Your task to perform on an android device: Is it going to rain today? Image 0: 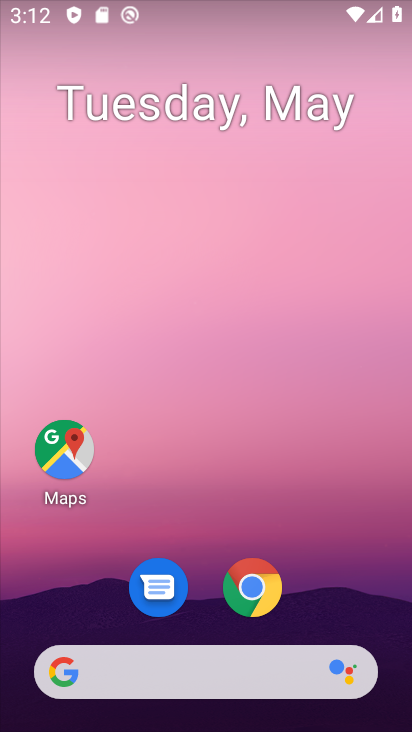
Step 0: click (256, 573)
Your task to perform on an android device: Is it going to rain today? Image 1: 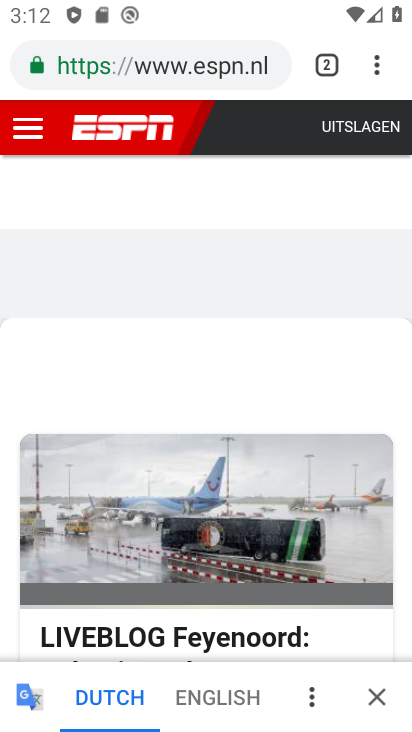
Step 1: click (371, 61)
Your task to perform on an android device: Is it going to rain today? Image 2: 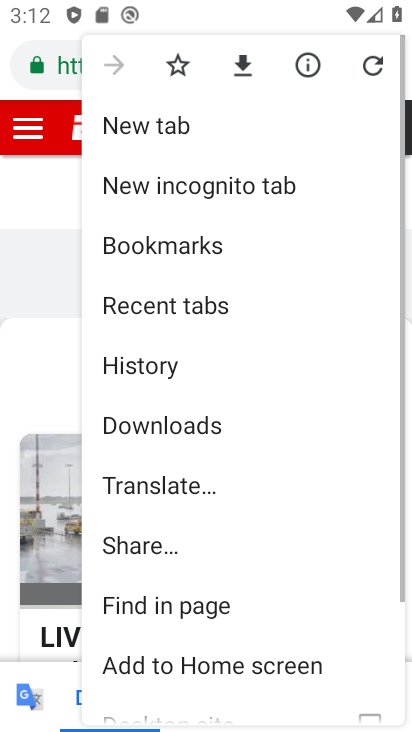
Step 2: click (208, 118)
Your task to perform on an android device: Is it going to rain today? Image 3: 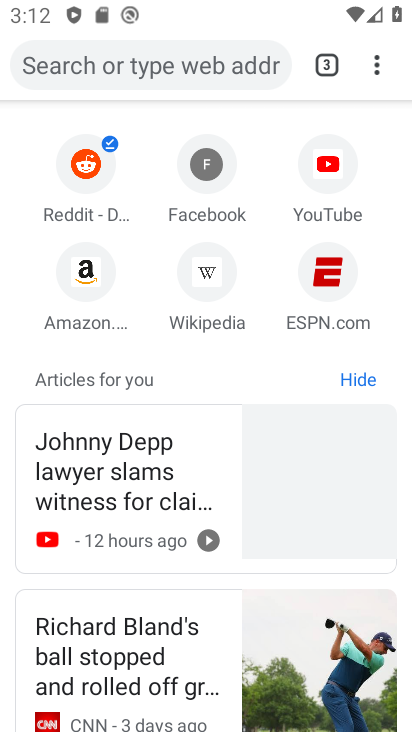
Step 3: click (153, 62)
Your task to perform on an android device: Is it going to rain today? Image 4: 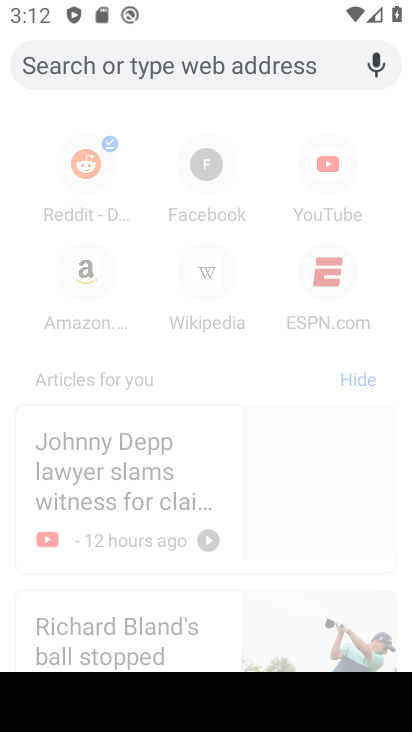
Step 4: type "Is it going to rain today?"
Your task to perform on an android device: Is it going to rain today? Image 5: 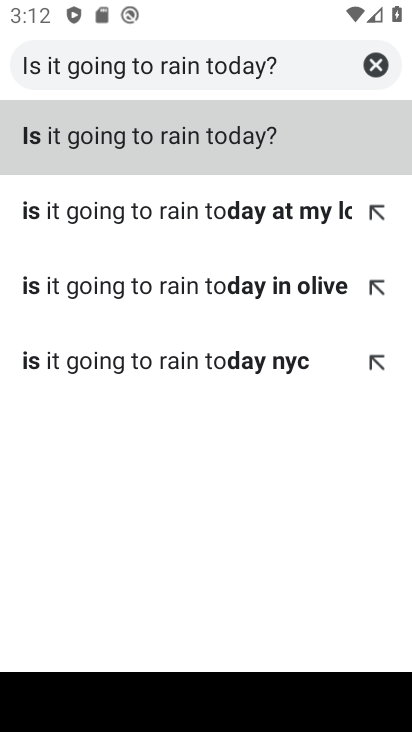
Step 5: click (143, 126)
Your task to perform on an android device: Is it going to rain today? Image 6: 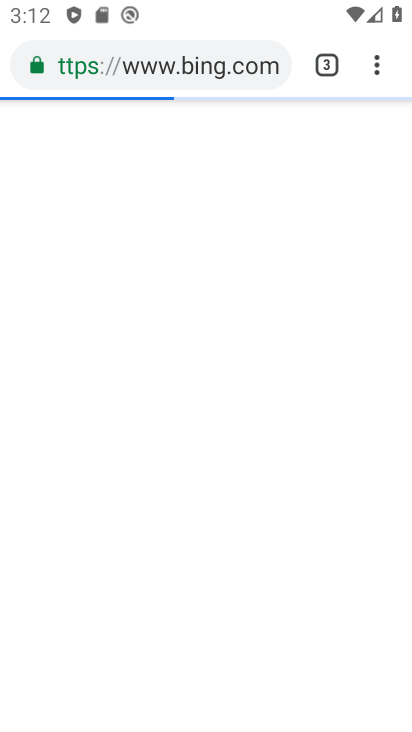
Step 6: task complete